Your task to perform on an android device: Go to ESPN.com Image 0: 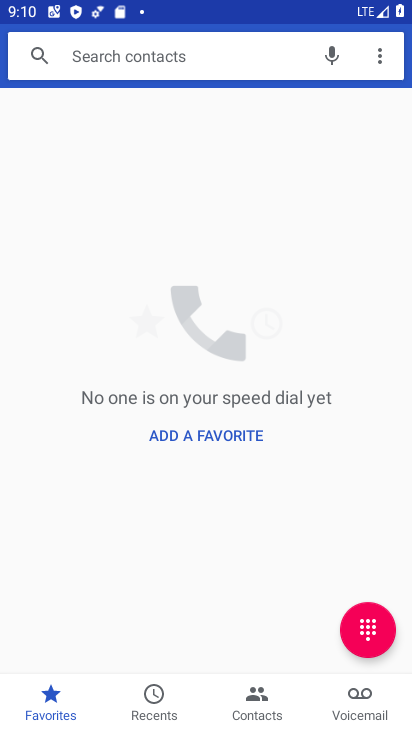
Step 0: press home button
Your task to perform on an android device: Go to ESPN.com Image 1: 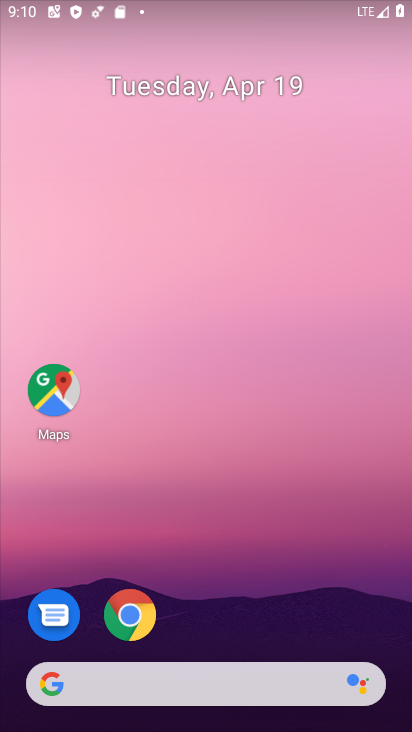
Step 1: click (129, 614)
Your task to perform on an android device: Go to ESPN.com Image 2: 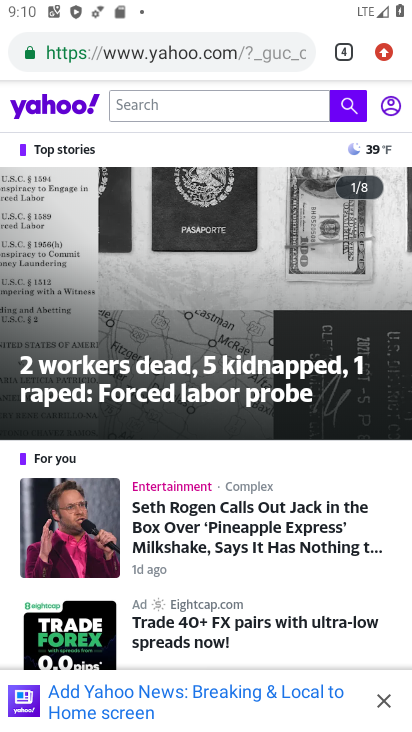
Step 2: click (386, 52)
Your task to perform on an android device: Go to ESPN.com Image 3: 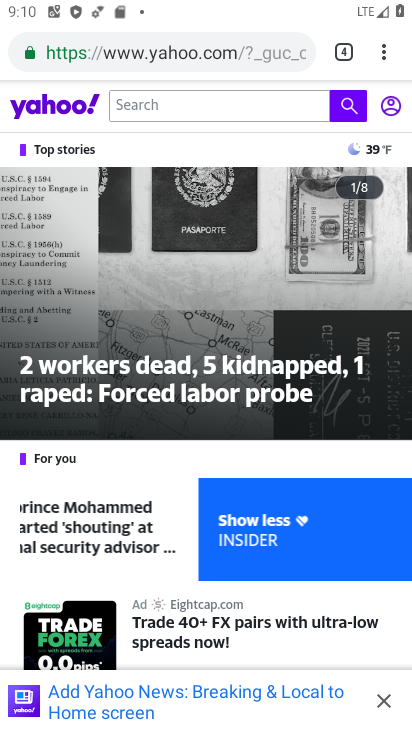
Step 3: click (348, 53)
Your task to perform on an android device: Go to ESPN.com Image 4: 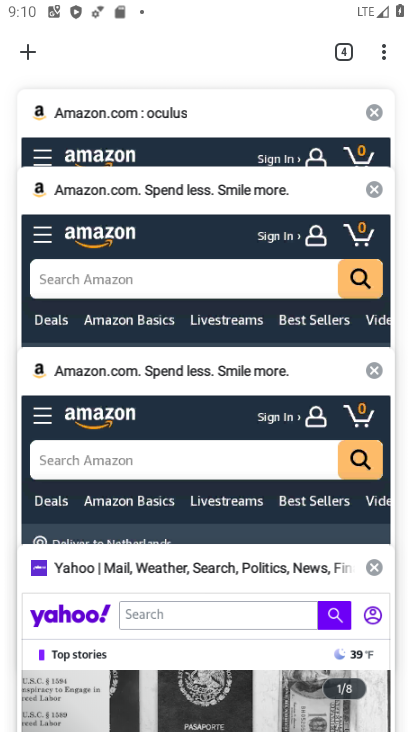
Step 4: click (28, 52)
Your task to perform on an android device: Go to ESPN.com Image 5: 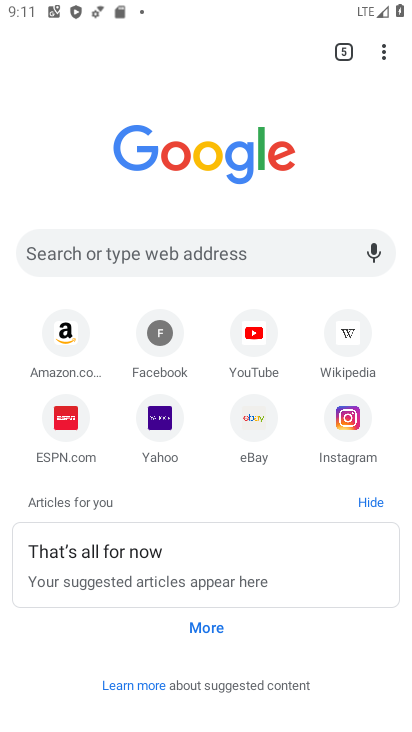
Step 5: click (61, 432)
Your task to perform on an android device: Go to ESPN.com Image 6: 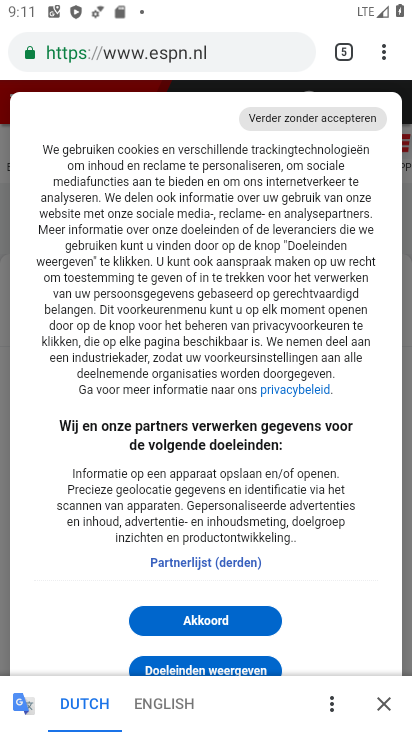
Step 6: task complete